Your task to perform on an android device: turn off javascript in the chrome app Image 0: 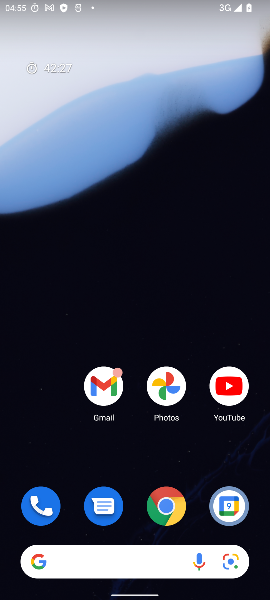
Step 0: drag from (106, 525) to (162, 67)
Your task to perform on an android device: turn off javascript in the chrome app Image 1: 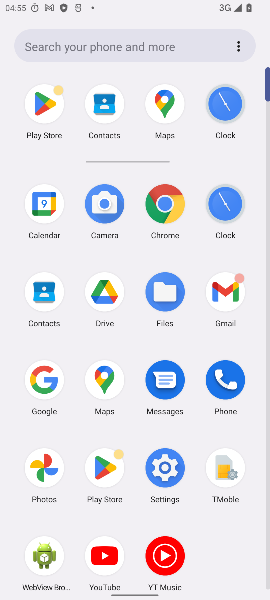
Step 1: click (161, 208)
Your task to perform on an android device: turn off javascript in the chrome app Image 2: 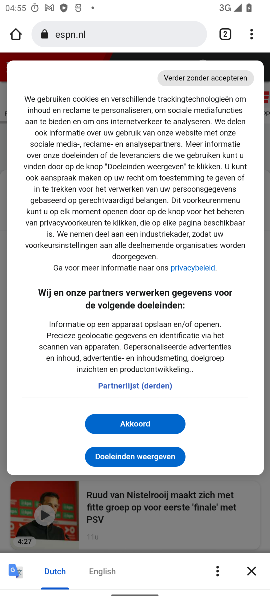
Step 2: drag from (261, 34) to (138, 442)
Your task to perform on an android device: turn off javascript in the chrome app Image 3: 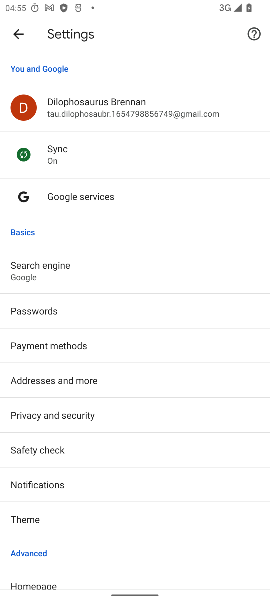
Step 3: drag from (88, 509) to (112, 185)
Your task to perform on an android device: turn off javascript in the chrome app Image 4: 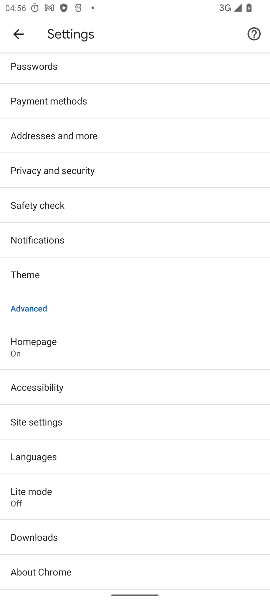
Step 4: click (73, 423)
Your task to perform on an android device: turn off javascript in the chrome app Image 5: 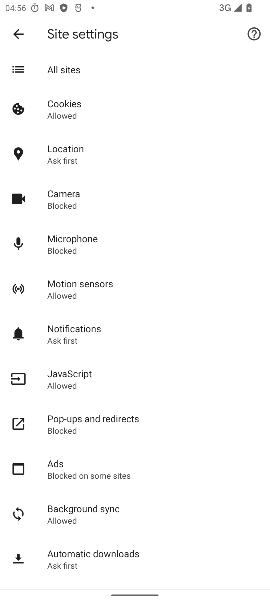
Step 5: click (57, 380)
Your task to perform on an android device: turn off javascript in the chrome app Image 6: 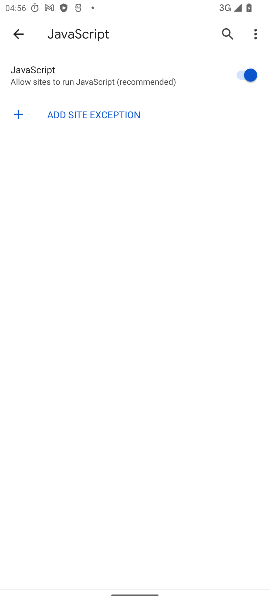
Step 6: click (240, 80)
Your task to perform on an android device: turn off javascript in the chrome app Image 7: 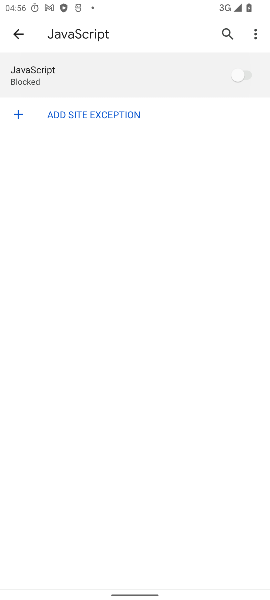
Step 7: task complete